Your task to perform on an android device: turn off notifications settings in the gmail app Image 0: 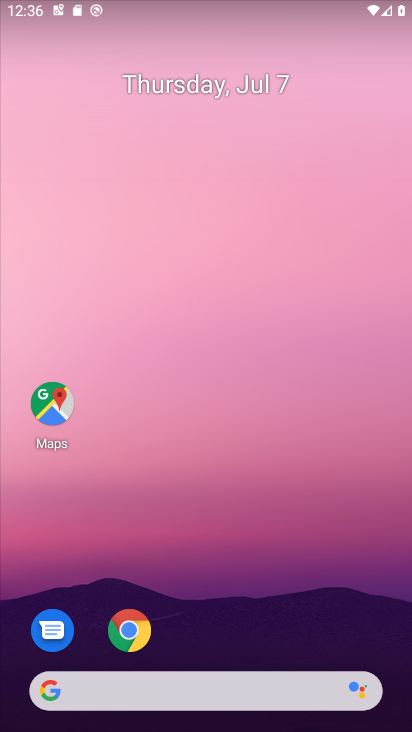
Step 0: drag from (192, 645) to (214, 288)
Your task to perform on an android device: turn off notifications settings in the gmail app Image 1: 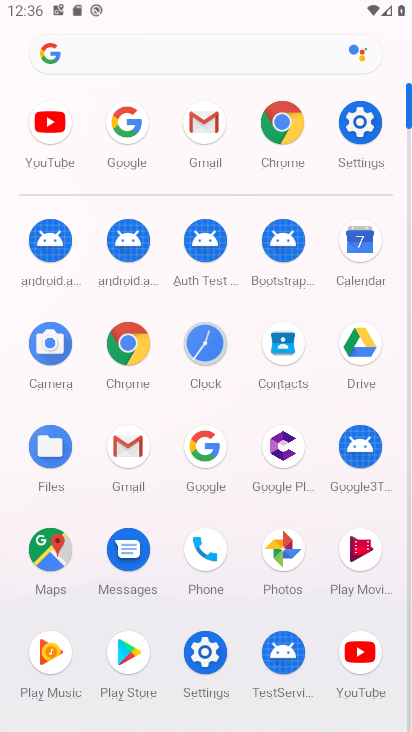
Step 1: click (201, 101)
Your task to perform on an android device: turn off notifications settings in the gmail app Image 2: 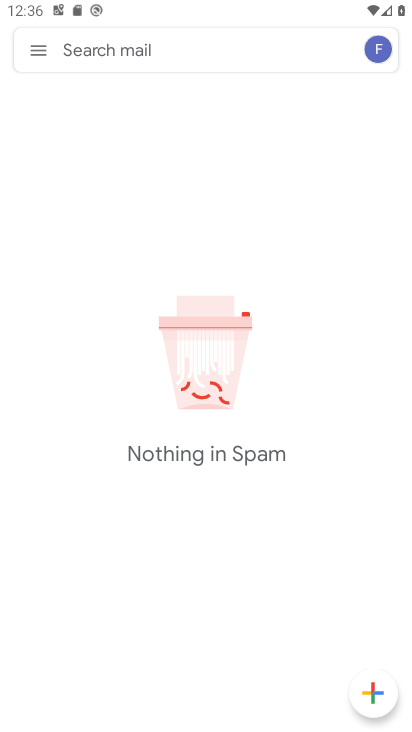
Step 2: click (36, 42)
Your task to perform on an android device: turn off notifications settings in the gmail app Image 3: 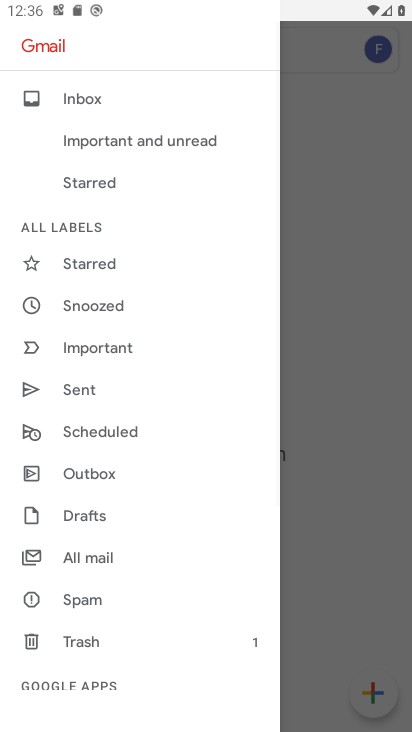
Step 3: drag from (114, 672) to (122, 286)
Your task to perform on an android device: turn off notifications settings in the gmail app Image 4: 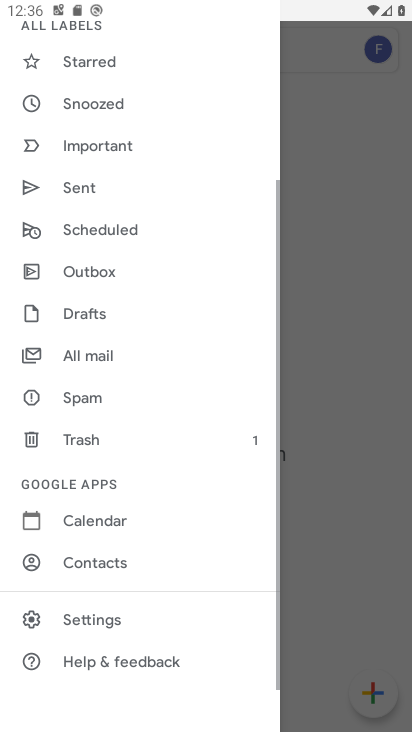
Step 4: click (81, 621)
Your task to perform on an android device: turn off notifications settings in the gmail app Image 5: 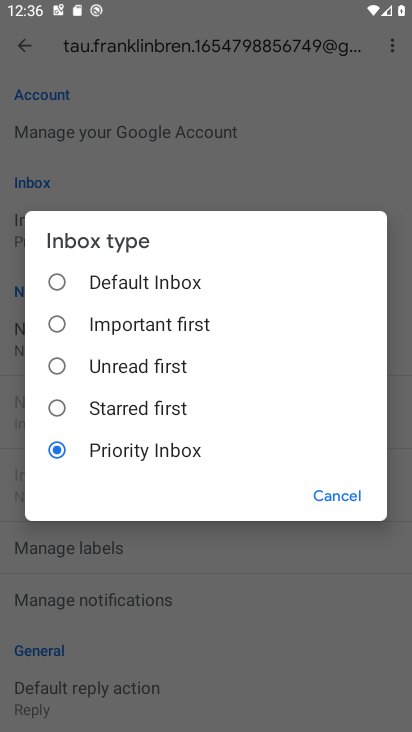
Step 5: click (216, 176)
Your task to perform on an android device: turn off notifications settings in the gmail app Image 6: 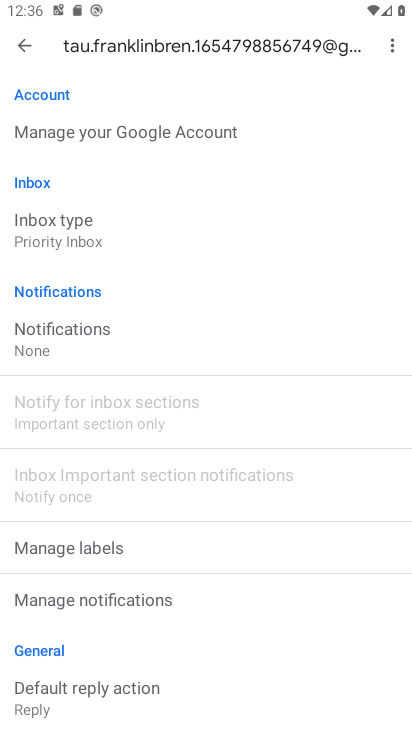
Step 6: click (95, 329)
Your task to perform on an android device: turn off notifications settings in the gmail app Image 7: 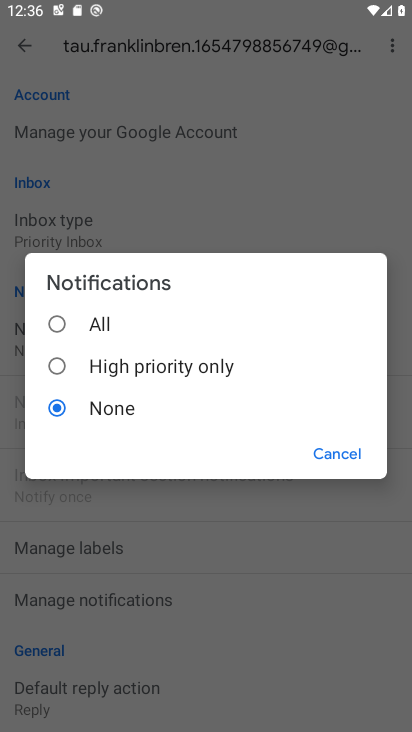
Step 7: task complete